Your task to perform on an android device: change keyboard looks Image 0: 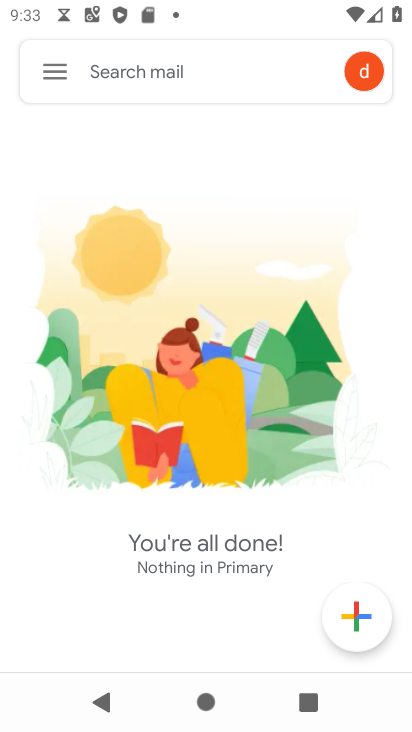
Step 0: press home button
Your task to perform on an android device: change keyboard looks Image 1: 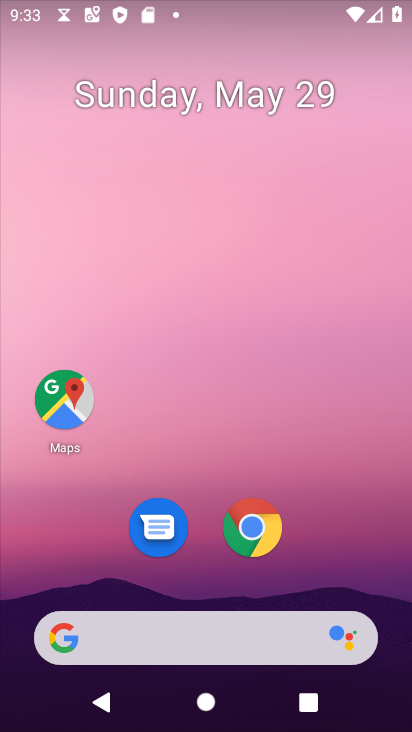
Step 1: drag from (148, 651) to (296, 92)
Your task to perform on an android device: change keyboard looks Image 2: 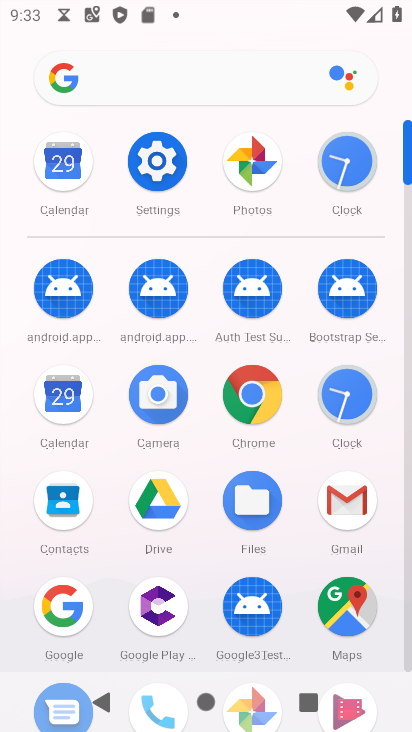
Step 2: click (162, 160)
Your task to perform on an android device: change keyboard looks Image 3: 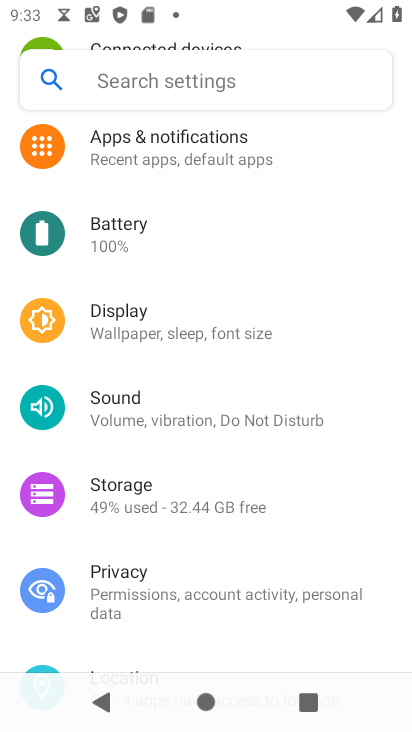
Step 3: drag from (261, 597) to (374, 62)
Your task to perform on an android device: change keyboard looks Image 4: 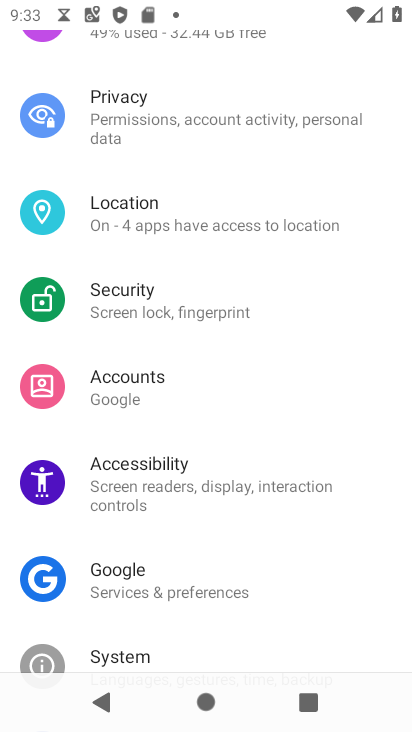
Step 4: drag from (278, 586) to (339, 166)
Your task to perform on an android device: change keyboard looks Image 5: 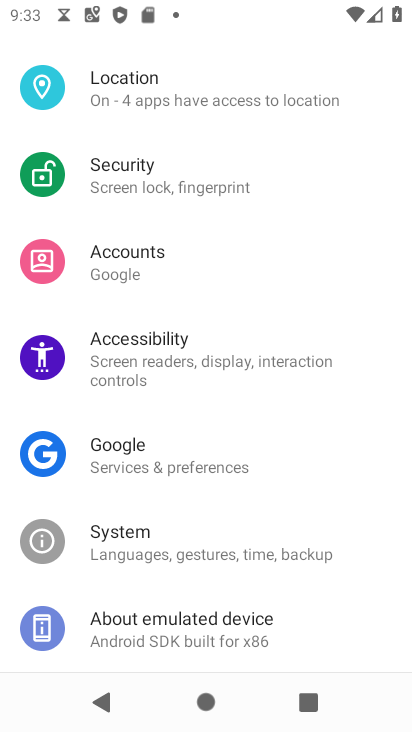
Step 5: click (136, 546)
Your task to perform on an android device: change keyboard looks Image 6: 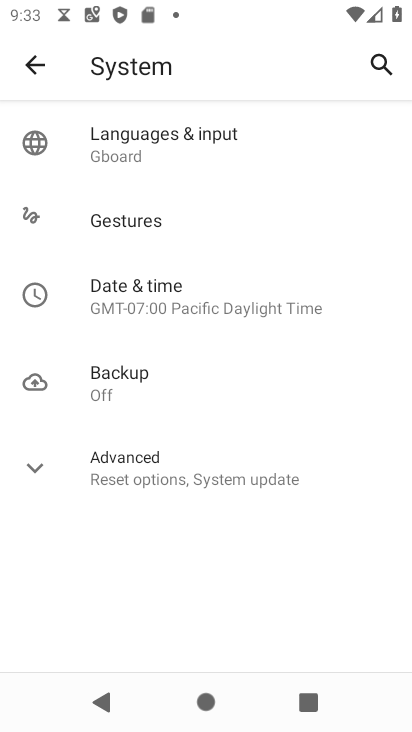
Step 6: click (175, 133)
Your task to perform on an android device: change keyboard looks Image 7: 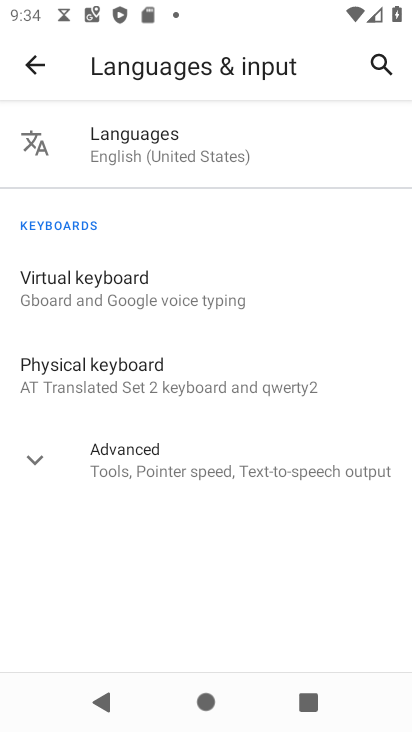
Step 7: click (116, 281)
Your task to perform on an android device: change keyboard looks Image 8: 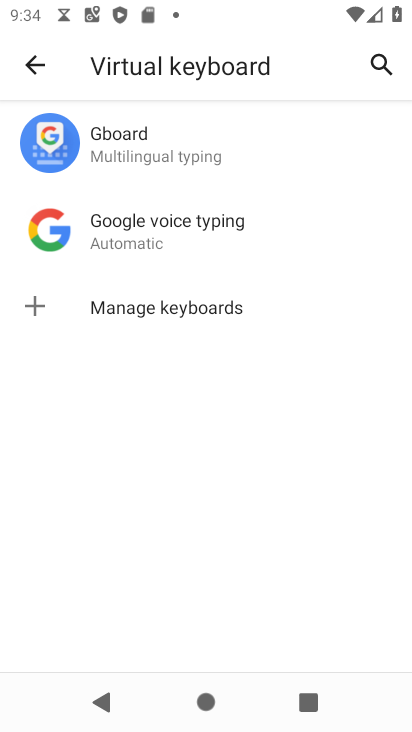
Step 8: click (158, 163)
Your task to perform on an android device: change keyboard looks Image 9: 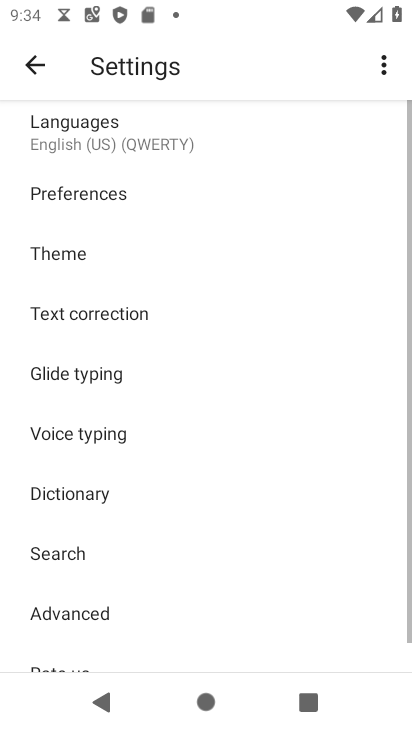
Step 9: click (88, 254)
Your task to perform on an android device: change keyboard looks Image 10: 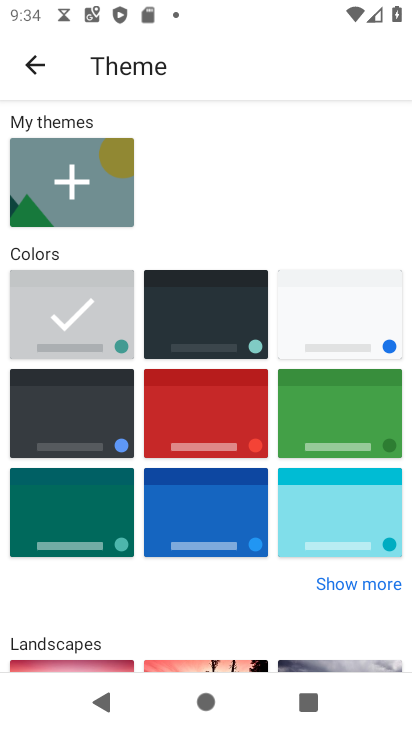
Step 10: click (225, 510)
Your task to perform on an android device: change keyboard looks Image 11: 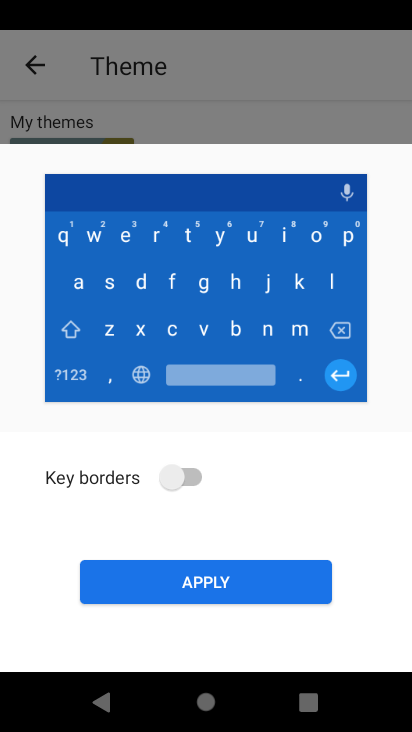
Step 11: click (201, 579)
Your task to perform on an android device: change keyboard looks Image 12: 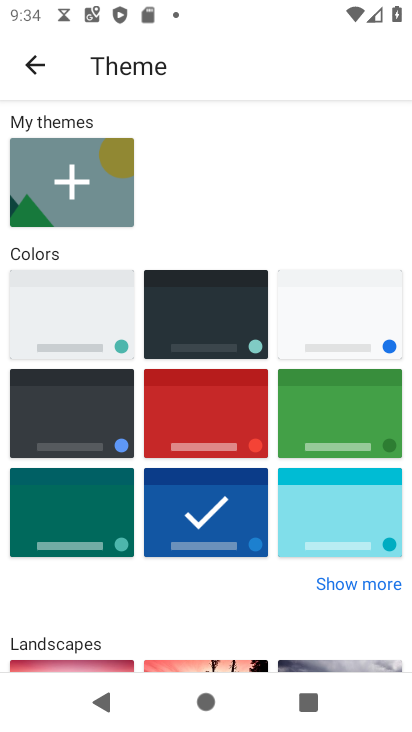
Step 12: task complete